Your task to perform on an android device: Go to internet settings Image 0: 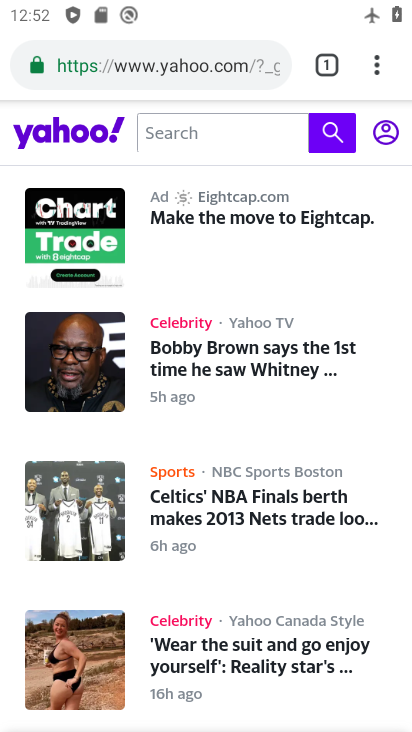
Step 0: press home button
Your task to perform on an android device: Go to internet settings Image 1: 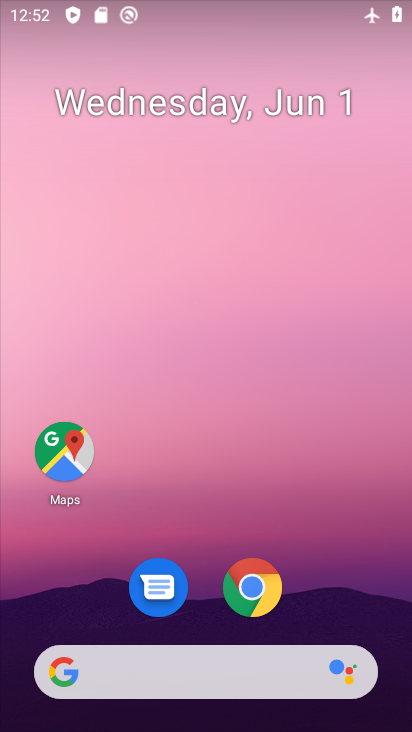
Step 1: drag from (252, 319) to (185, 29)
Your task to perform on an android device: Go to internet settings Image 2: 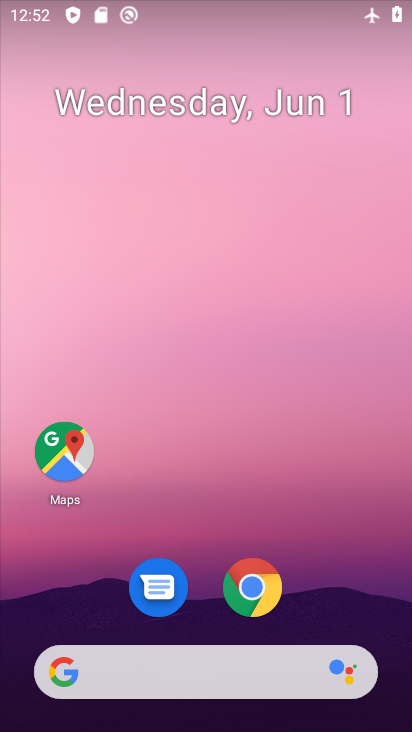
Step 2: drag from (226, 384) to (221, 10)
Your task to perform on an android device: Go to internet settings Image 3: 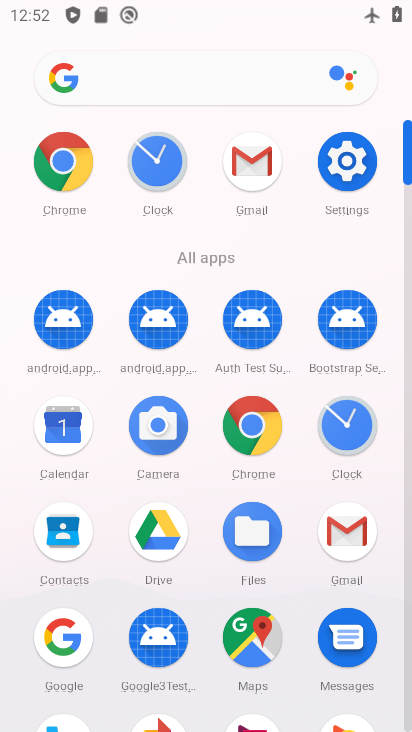
Step 3: click (349, 157)
Your task to perform on an android device: Go to internet settings Image 4: 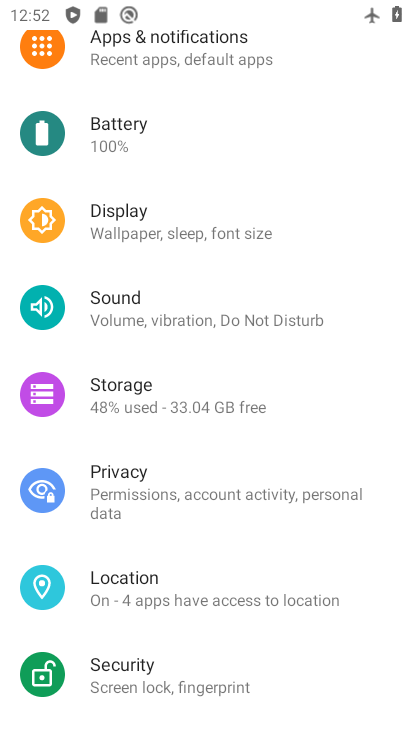
Step 4: drag from (173, 103) to (157, 631)
Your task to perform on an android device: Go to internet settings Image 5: 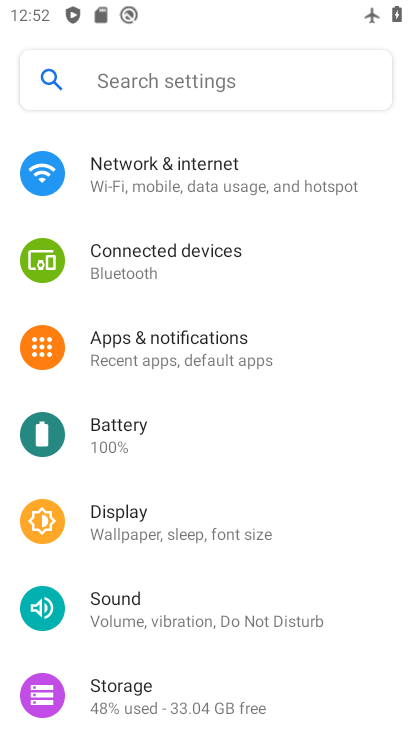
Step 5: click (156, 183)
Your task to perform on an android device: Go to internet settings Image 6: 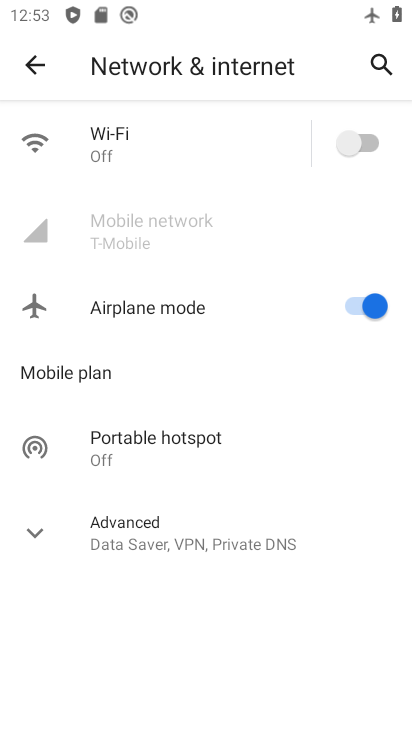
Step 6: task complete